Your task to perform on an android device: make emails show in primary in the gmail app Image 0: 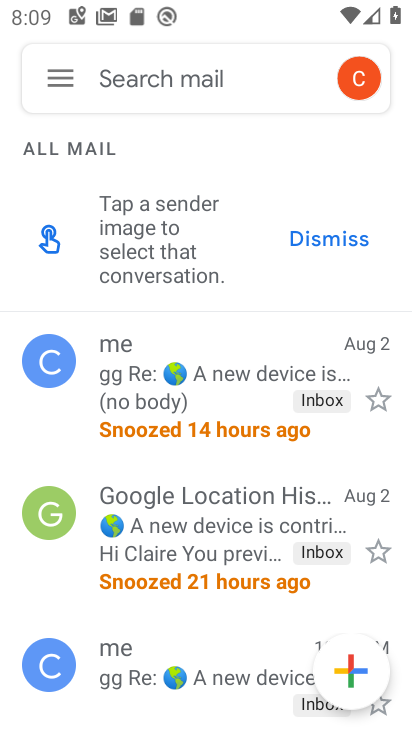
Step 0: click (49, 78)
Your task to perform on an android device: make emails show in primary in the gmail app Image 1: 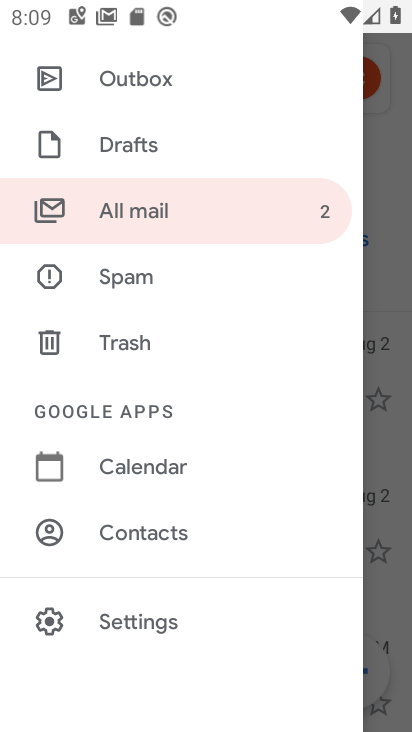
Step 1: click (138, 623)
Your task to perform on an android device: make emails show in primary in the gmail app Image 2: 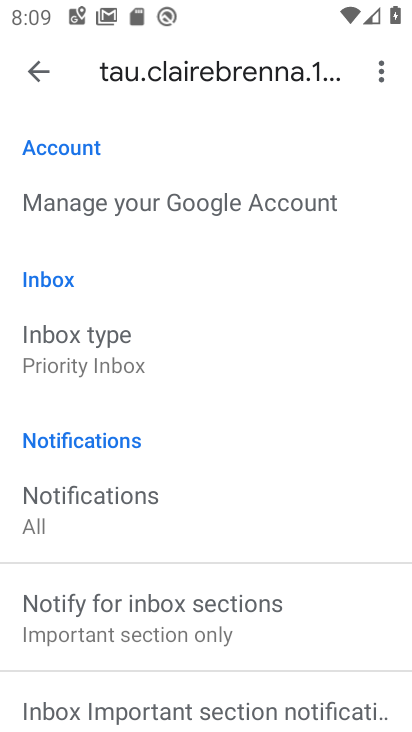
Step 2: task complete